Your task to perform on an android device: Open eBay Image 0: 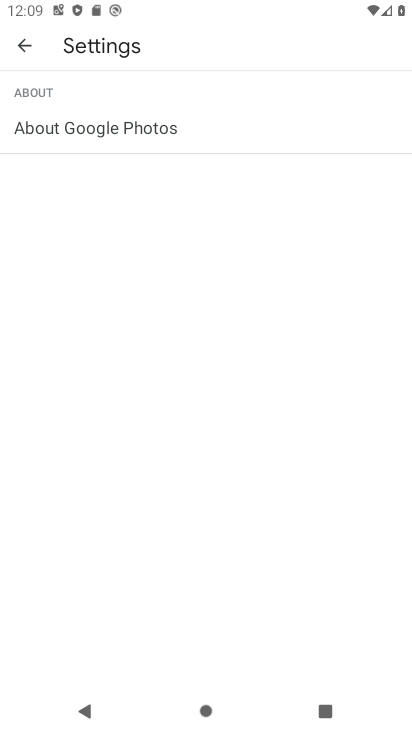
Step 0: press home button
Your task to perform on an android device: Open eBay Image 1: 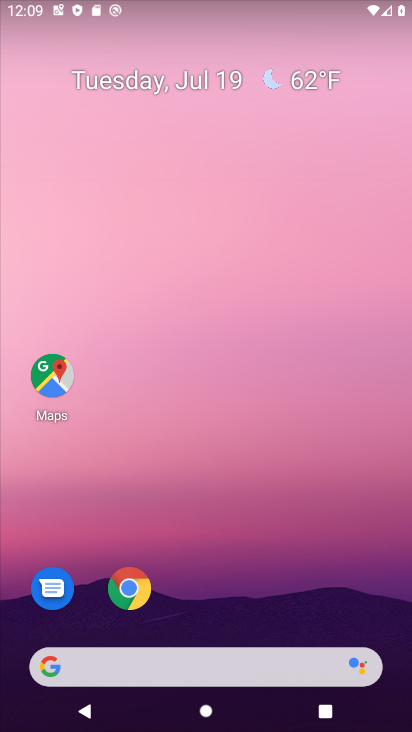
Step 1: click (126, 591)
Your task to perform on an android device: Open eBay Image 2: 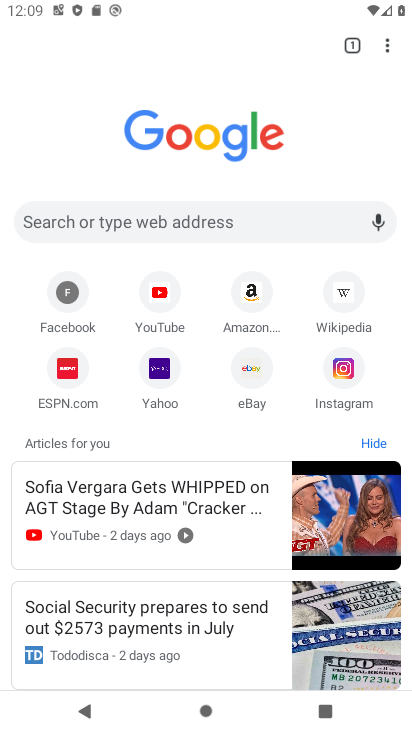
Step 2: click (269, 369)
Your task to perform on an android device: Open eBay Image 3: 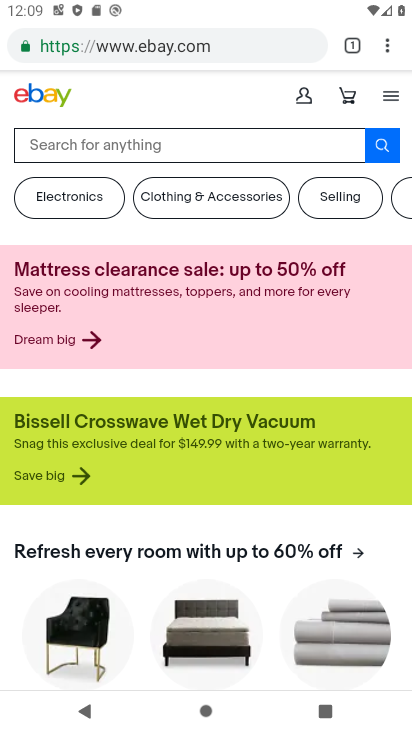
Step 3: task complete